Your task to perform on an android device: Go to Maps Image 0: 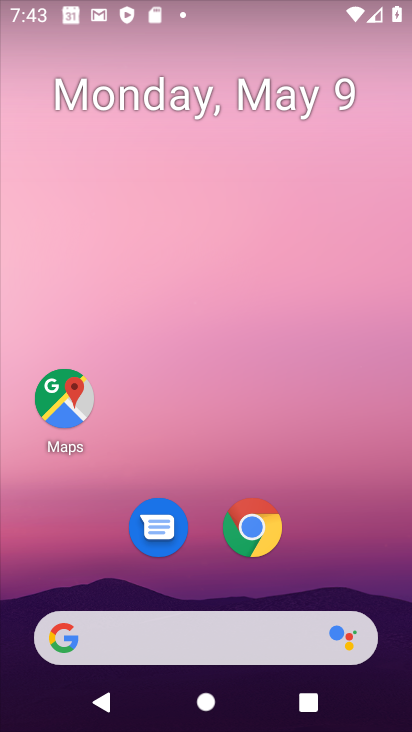
Step 0: drag from (249, 573) to (253, 133)
Your task to perform on an android device: Go to Maps Image 1: 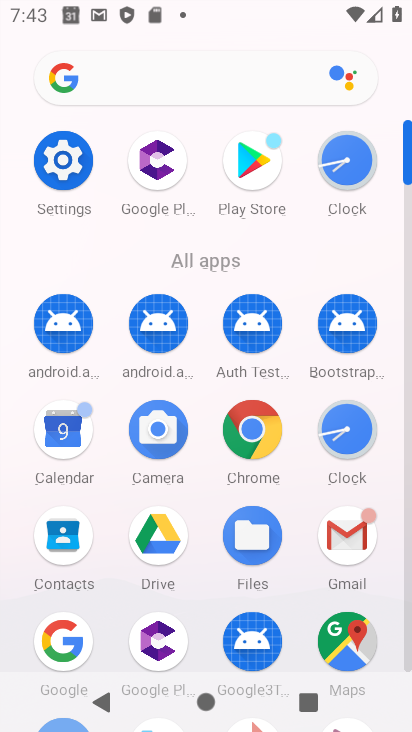
Step 1: click (348, 636)
Your task to perform on an android device: Go to Maps Image 2: 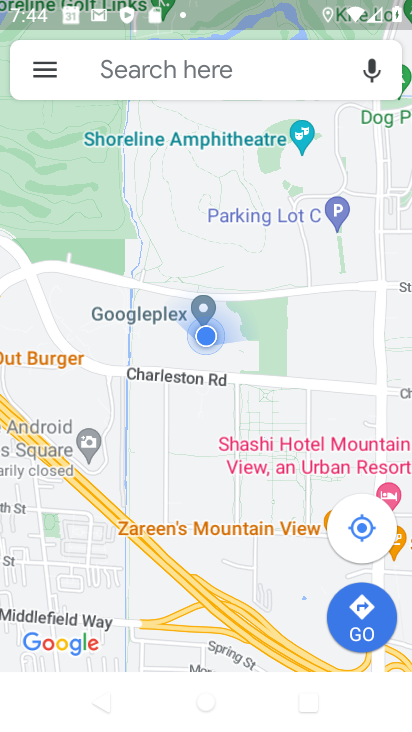
Step 2: task complete